Your task to perform on an android device: toggle sleep mode Image 0: 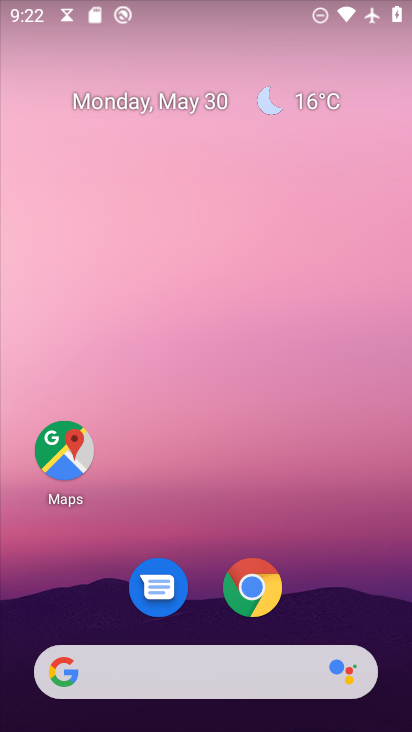
Step 0: press home button
Your task to perform on an android device: toggle sleep mode Image 1: 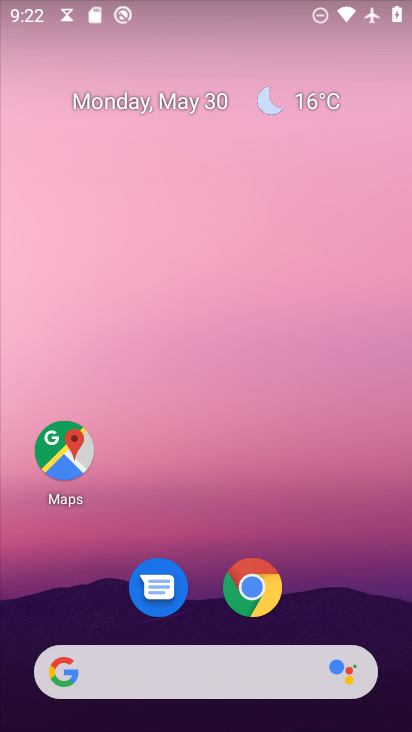
Step 1: drag from (170, 687) to (362, 117)
Your task to perform on an android device: toggle sleep mode Image 2: 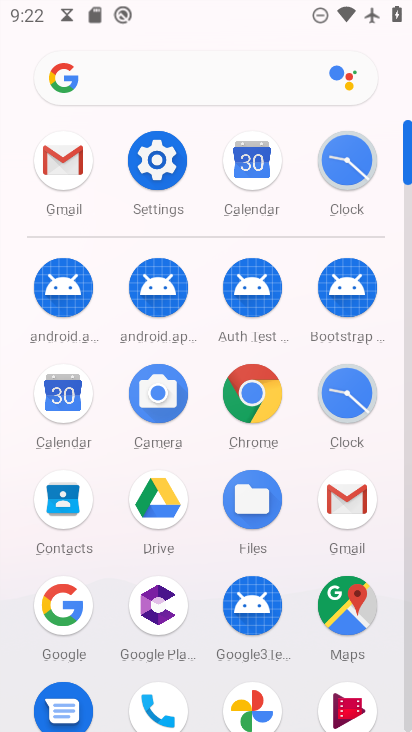
Step 2: click (169, 156)
Your task to perform on an android device: toggle sleep mode Image 3: 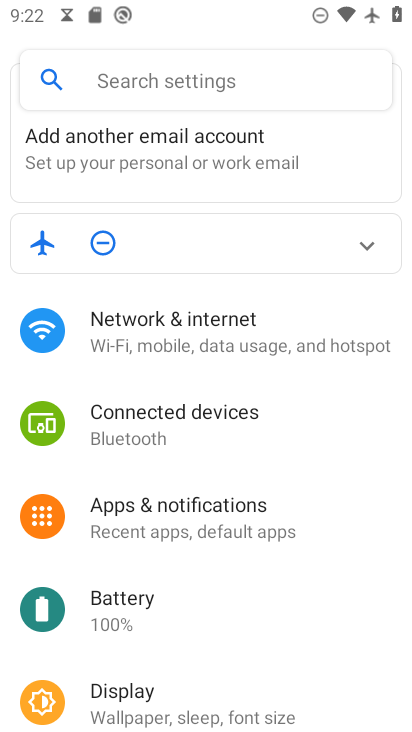
Step 3: drag from (212, 623) to (304, 342)
Your task to perform on an android device: toggle sleep mode Image 4: 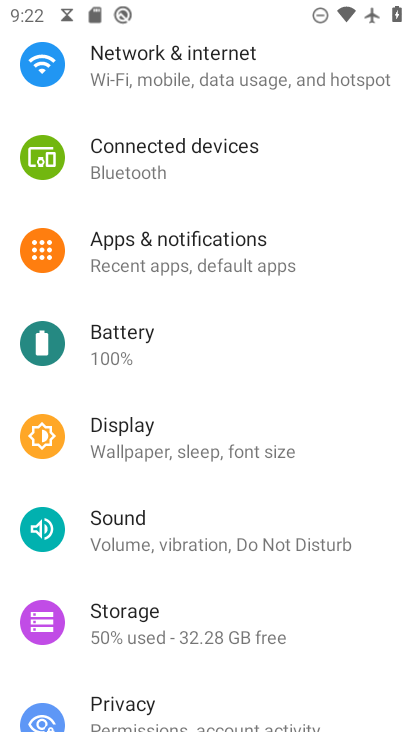
Step 4: click (215, 459)
Your task to perform on an android device: toggle sleep mode Image 5: 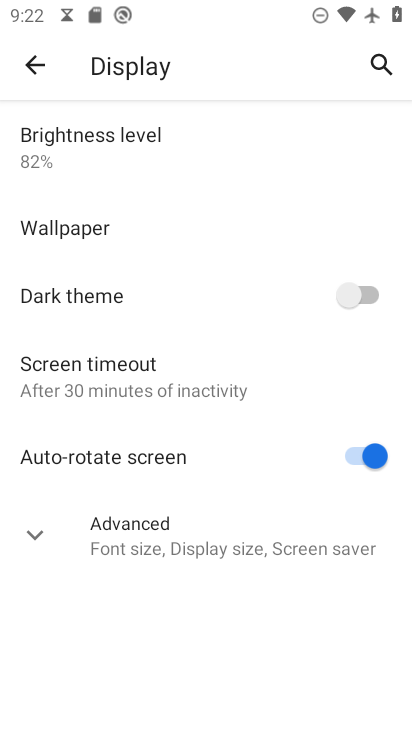
Step 5: task complete